Your task to perform on an android device: Open privacy settings Image 0: 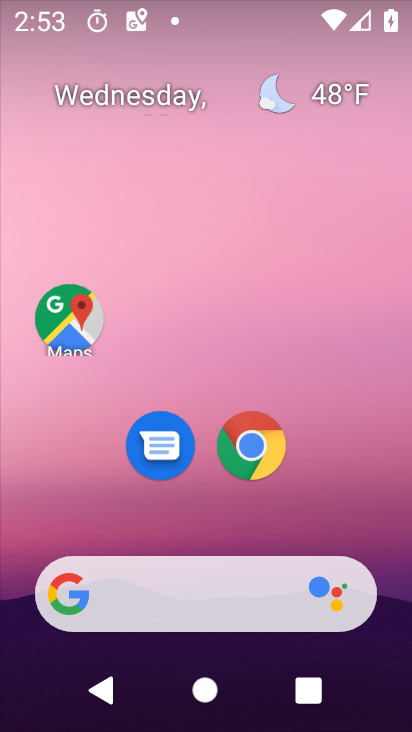
Step 0: drag from (383, 554) to (388, 9)
Your task to perform on an android device: Open privacy settings Image 1: 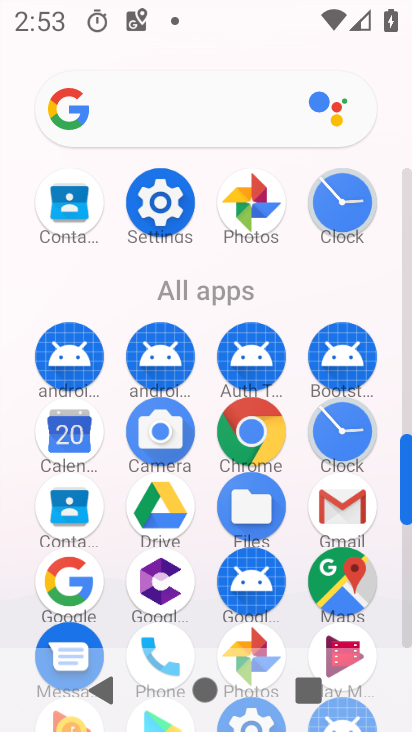
Step 1: click (155, 204)
Your task to perform on an android device: Open privacy settings Image 2: 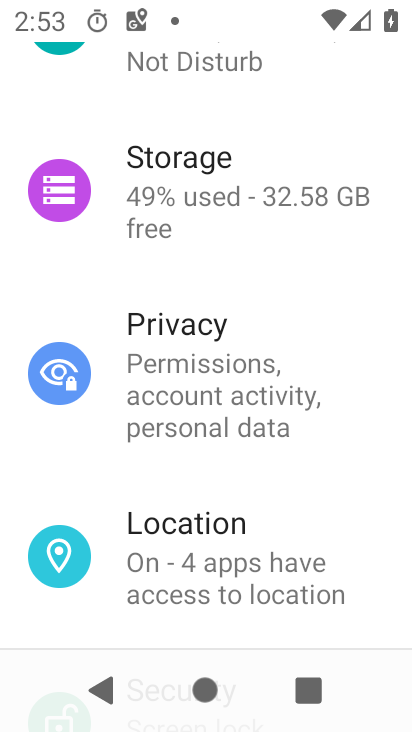
Step 2: click (164, 343)
Your task to perform on an android device: Open privacy settings Image 3: 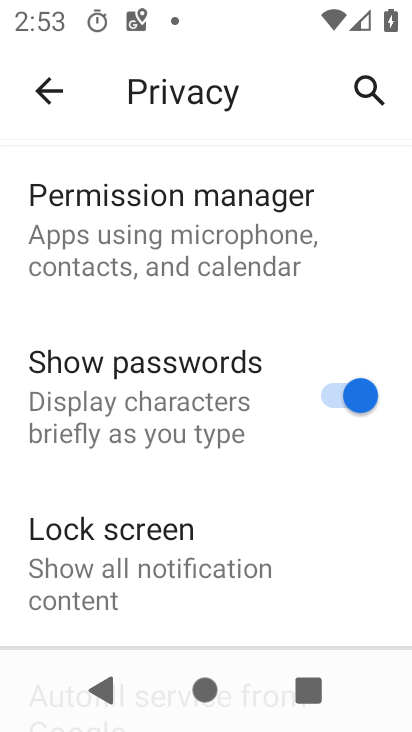
Step 3: task complete